Your task to perform on an android device: open a new tab in the chrome app Image 0: 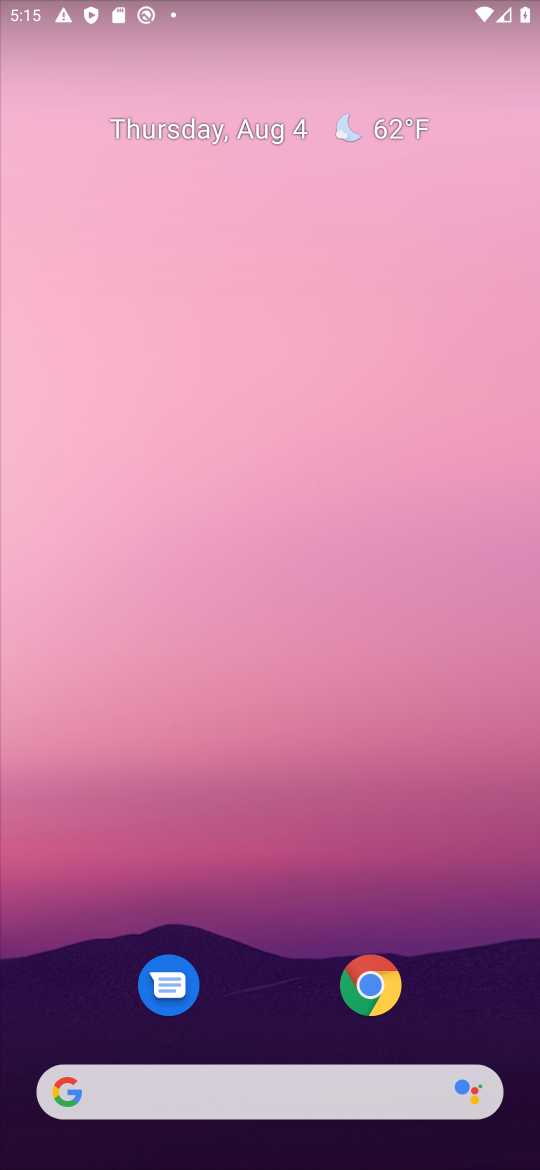
Step 0: click (361, 990)
Your task to perform on an android device: open a new tab in the chrome app Image 1: 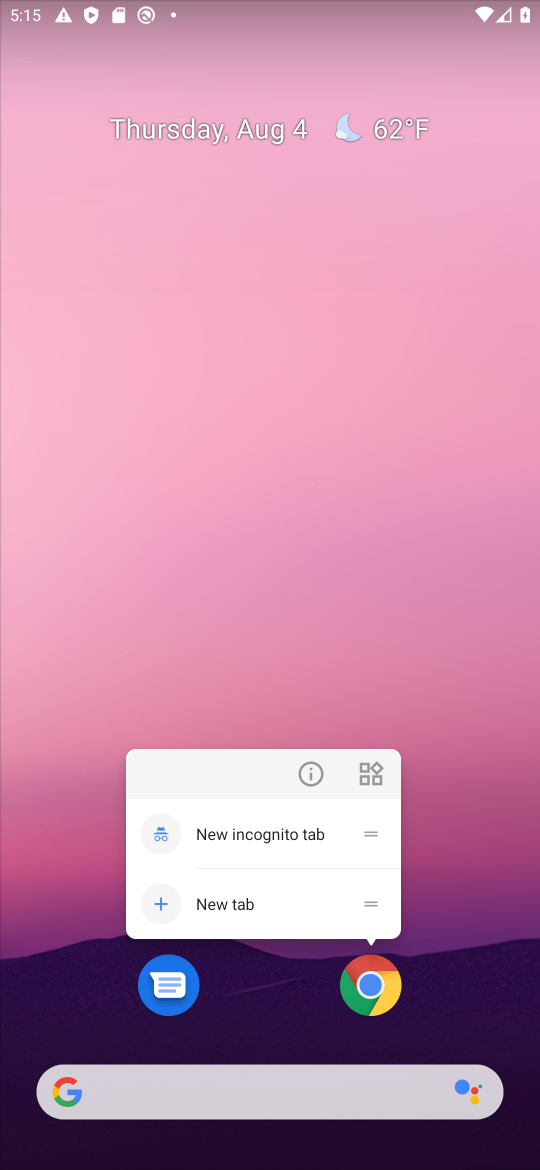
Step 1: click (362, 988)
Your task to perform on an android device: open a new tab in the chrome app Image 2: 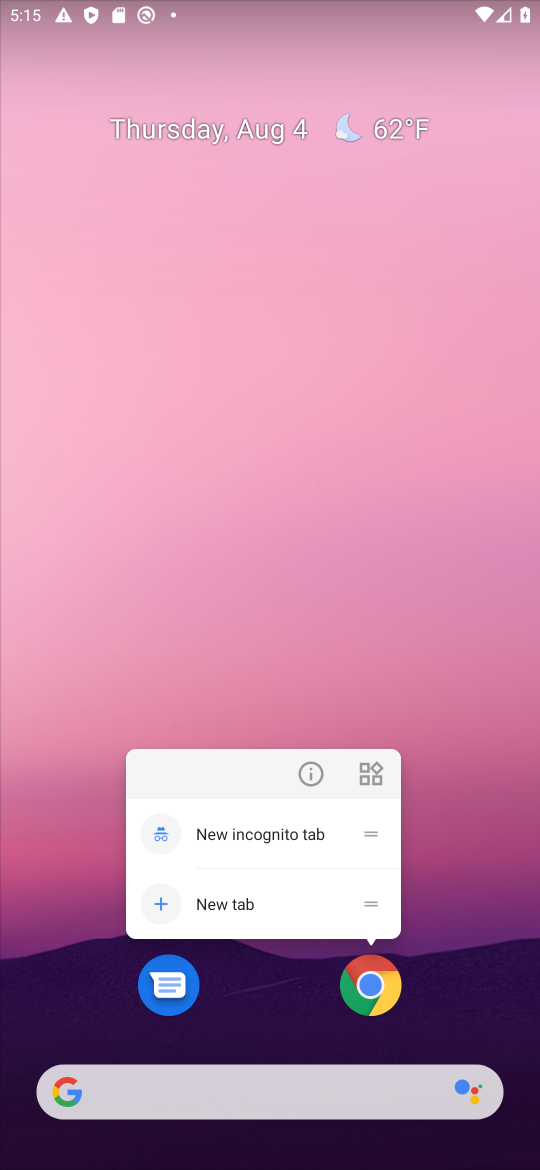
Step 2: click (362, 988)
Your task to perform on an android device: open a new tab in the chrome app Image 3: 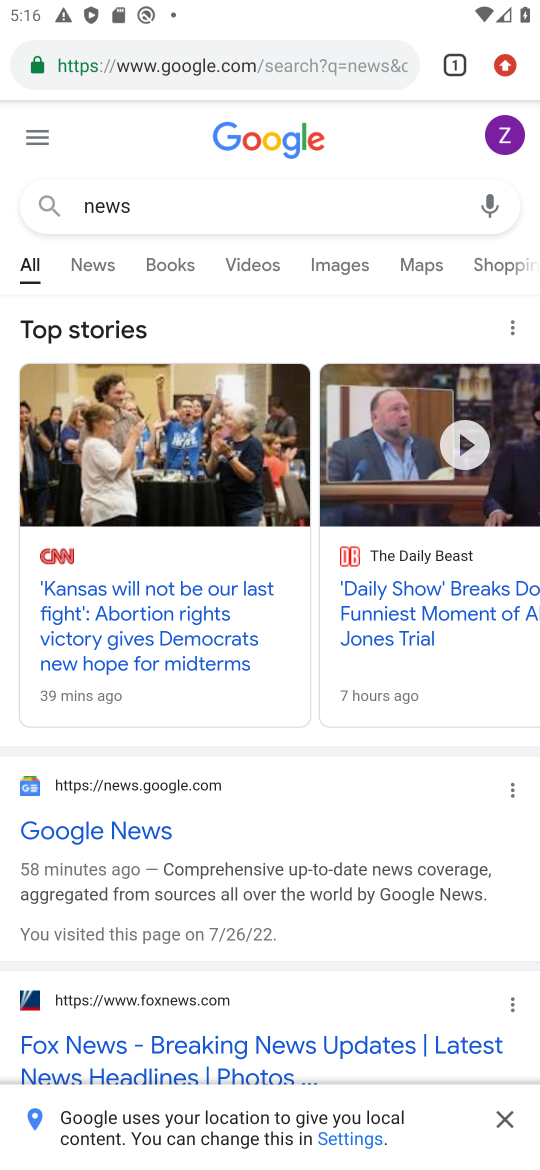
Step 3: click (451, 63)
Your task to perform on an android device: open a new tab in the chrome app Image 4: 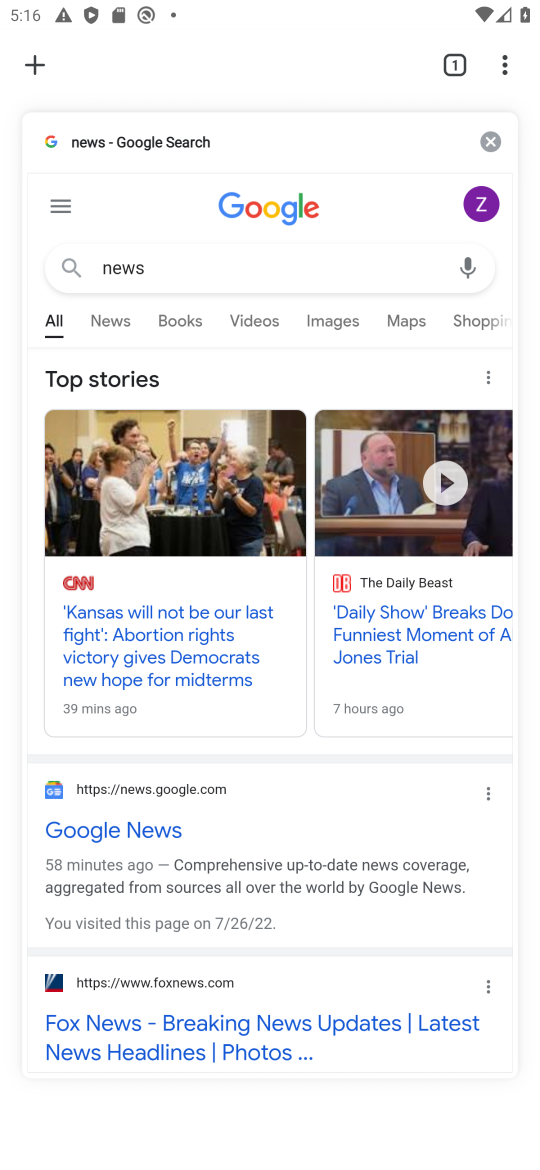
Step 4: click (40, 68)
Your task to perform on an android device: open a new tab in the chrome app Image 5: 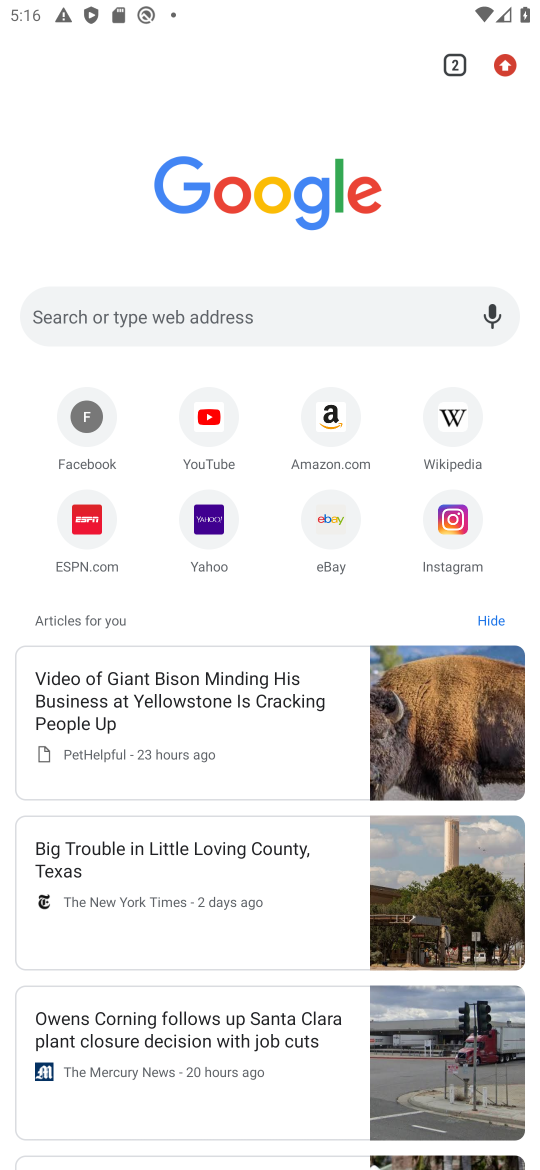
Step 5: task complete